Your task to perform on an android device: What's the weather going to be tomorrow? Image 0: 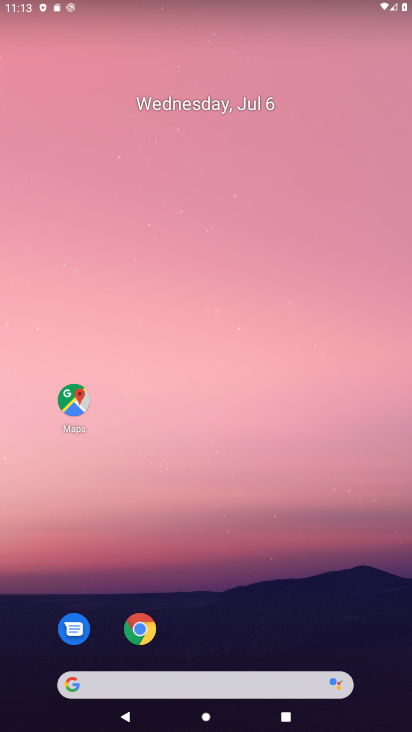
Step 0: click (206, 687)
Your task to perform on an android device: What's the weather going to be tomorrow? Image 1: 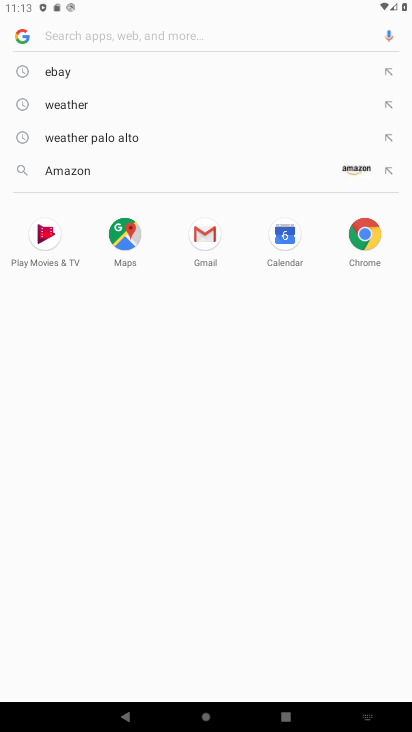
Step 1: click (81, 106)
Your task to perform on an android device: What's the weather going to be tomorrow? Image 2: 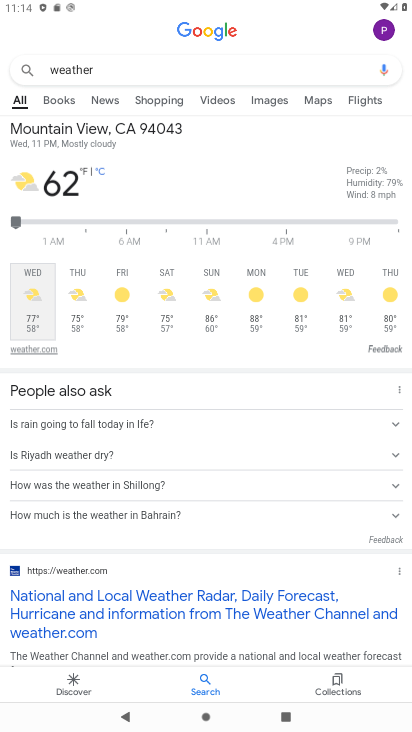
Step 2: click (121, 269)
Your task to perform on an android device: What's the weather going to be tomorrow? Image 3: 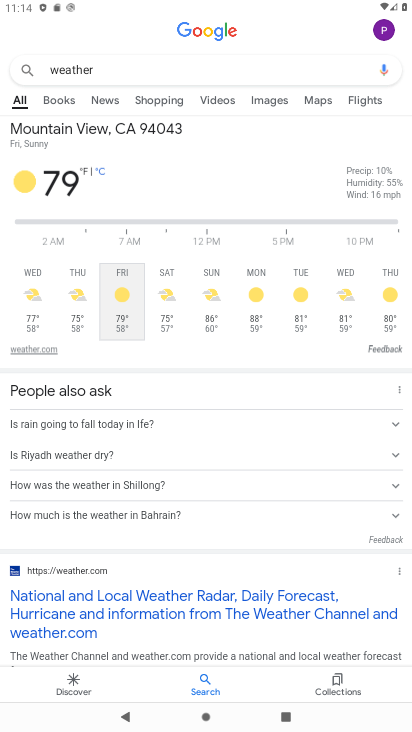
Step 3: task complete